Your task to perform on an android device: turn on data saver in the chrome app Image 0: 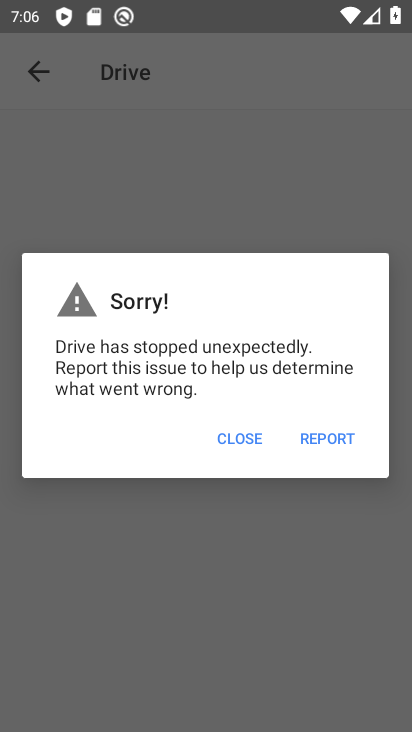
Step 0: press home button
Your task to perform on an android device: turn on data saver in the chrome app Image 1: 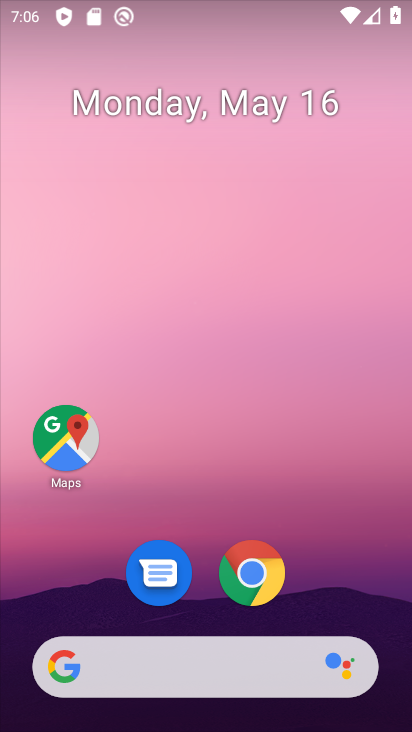
Step 1: drag from (356, 535) to (382, 116)
Your task to perform on an android device: turn on data saver in the chrome app Image 2: 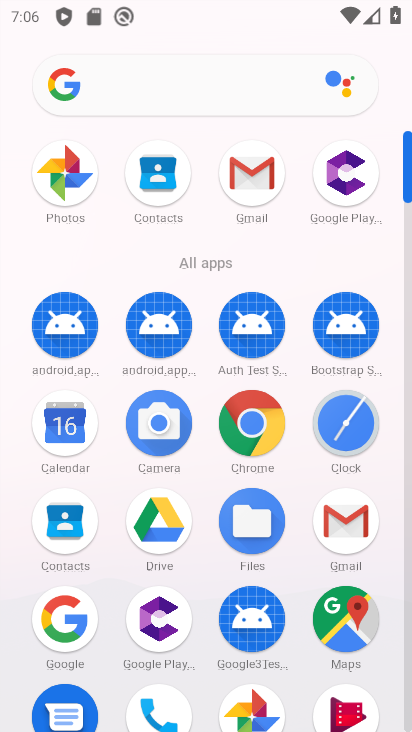
Step 2: click (263, 415)
Your task to perform on an android device: turn on data saver in the chrome app Image 3: 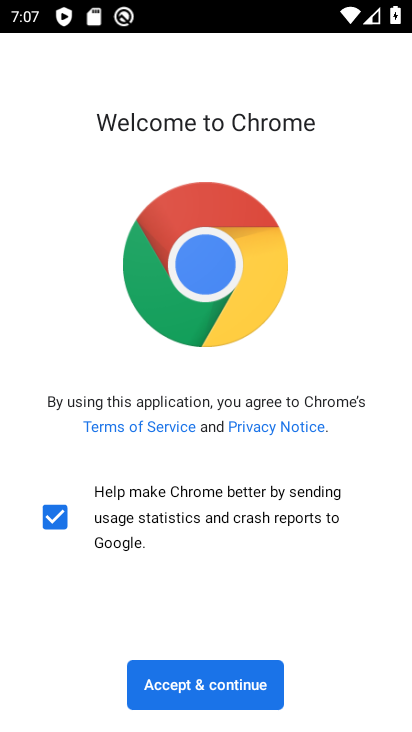
Step 3: click (183, 652)
Your task to perform on an android device: turn on data saver in the chrome app Image 4: 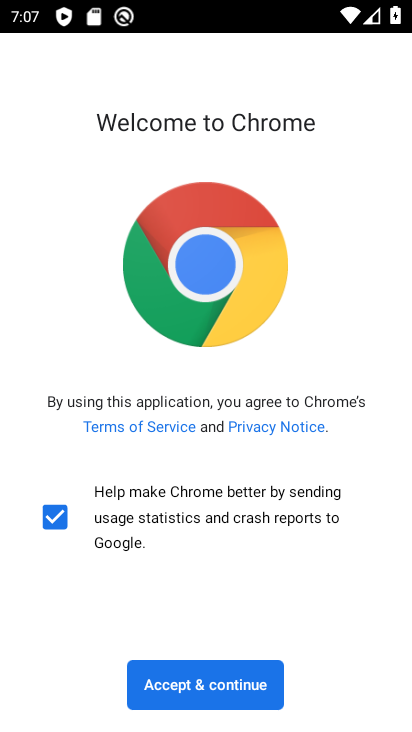
Step 4: click (194, 671)
Your task to perform on an android device: turn on data saver in the chrome app Image 5: 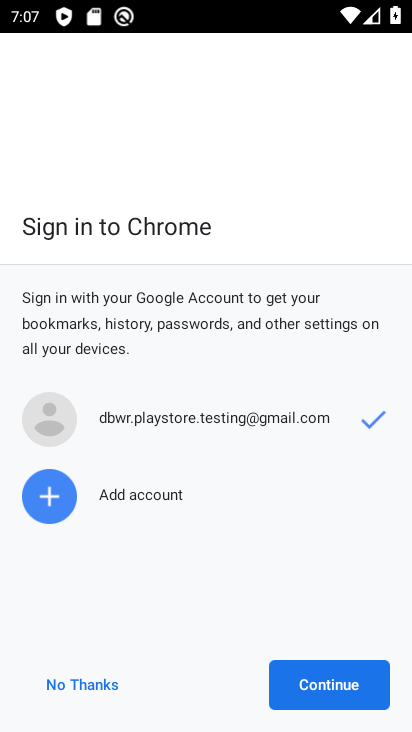
Step 5: click (106, 686)
Your task to perform on an android device: turn on data saver in the chrome app Image 6: 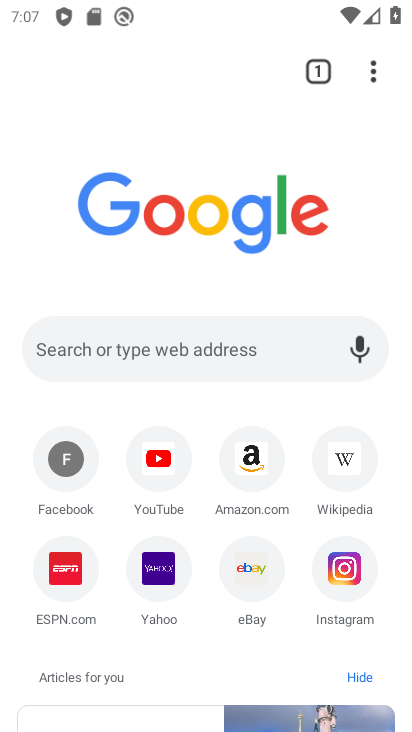
Step 6: drag from (368, 76) to (138, 601)
Your task to perform on an android device: turn on data saver in the chrome app Image 7: 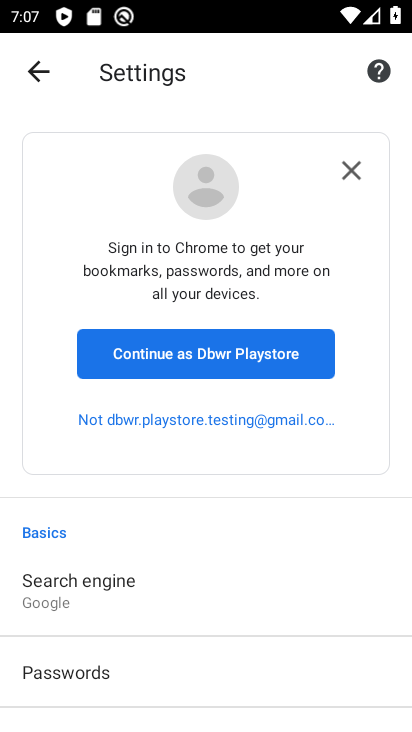
Step 7: drag from (142, 593) to (245, 153)
Your task to perform on an android device: turn on data saver in the chrome app Image 8: 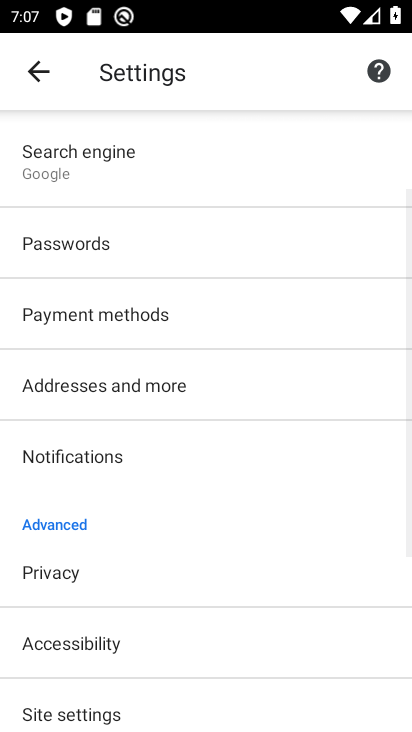
Step 8: drag from (157, 574) to (183, 194)
Your task to perform on an android device: turn on data saver in the chrome app Image 9: 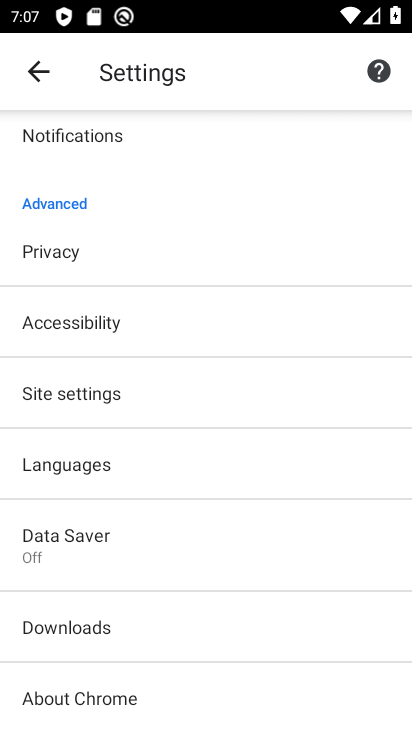
Step 9: click (119, 548)
Your task to perform on an android device: turn on data saver in the chrome app Image 10: 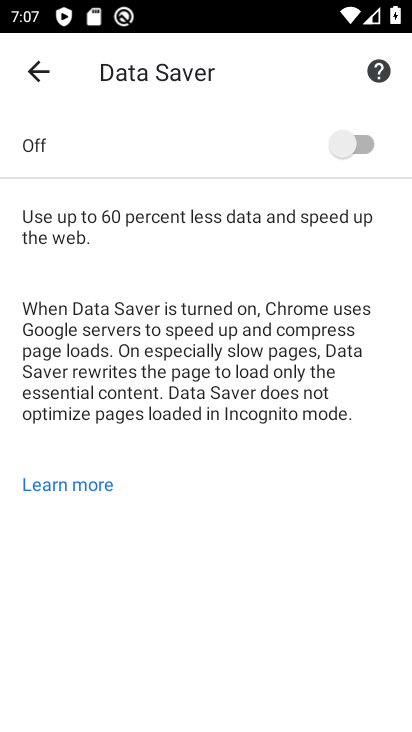
Step 10: click (340, 134)
Your task to perform on an android device: turn on data saver in the chrome app Image 11: 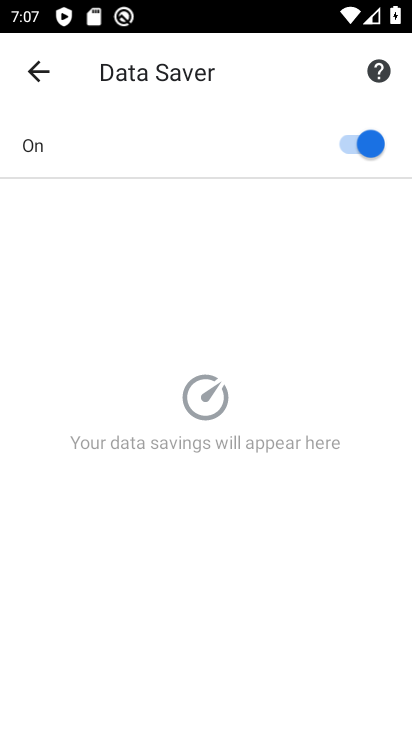
Step 11: task complete